Your task to perform on an android device: turn vacation reply on in the gmail app Image 0: 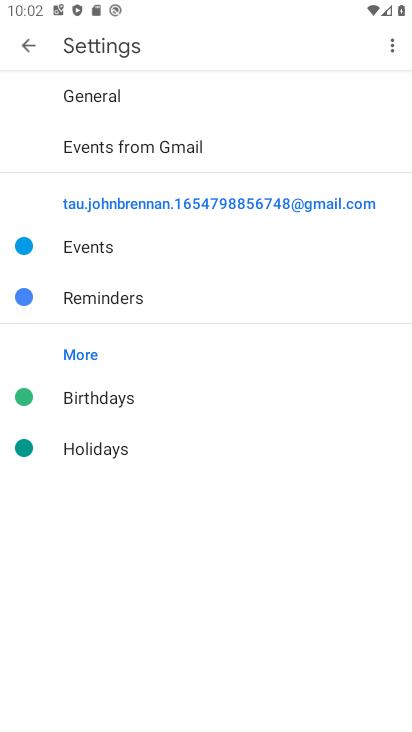
Step 0: press home button
Your task to perform on an android device: turn vacation reply on in the gmail app Image 1: 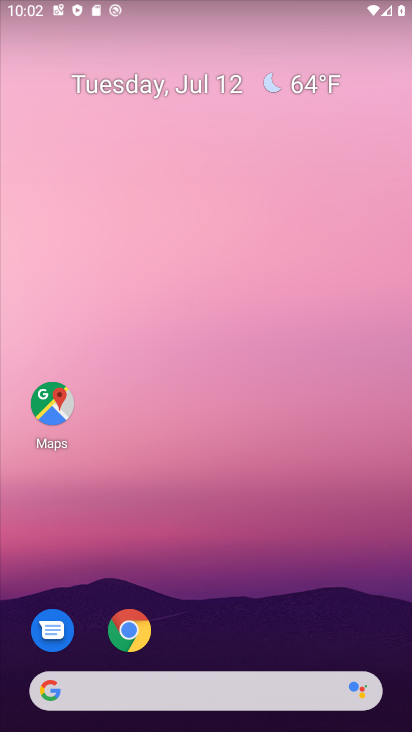
Step 1: drag from (310, 604) to (380, 30)
Your task to perform on an android device: turn vacation reply on in the gmail app Image 2: 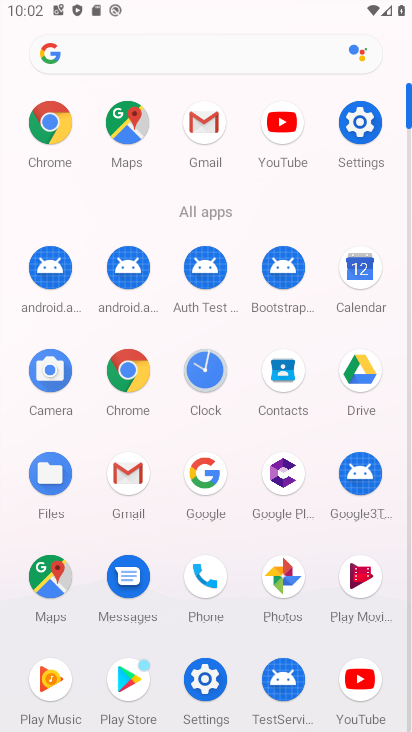
Step 2: click (215, 129)
Your task to perform on an android device: turn vacation reply on in the gmail app Image 3: 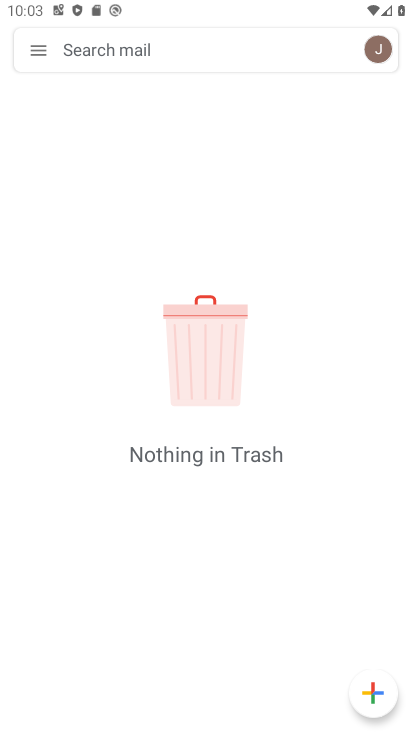
Step 3: click (33, 65)
Your task to perform on an android device: turn vacation reply on in the gmail app Image 4: 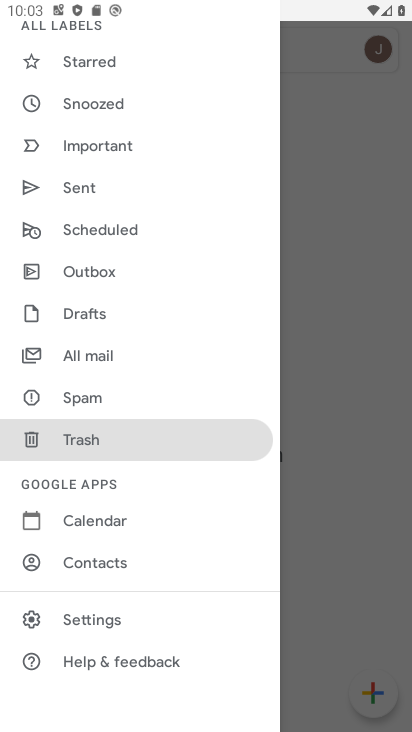
Step 4: click (101, 620)
Your task to perform on an android device: turn vacation reply on in the gmail app Image 5: 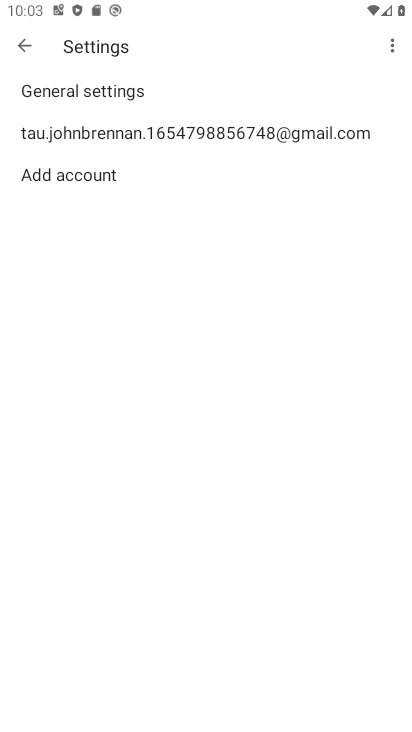
Step 5: click (116, 141)
Your task to perform on an android device: turn vacation reply on in the gmail app Image 6: 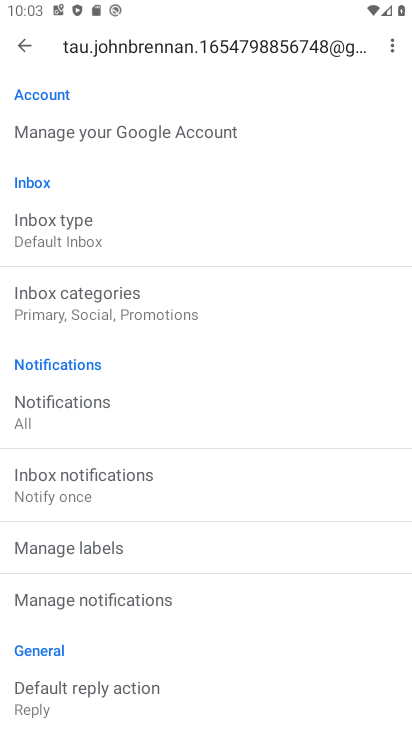
Step 6: drag from (116, 624) to (160, 82)
Your task to perform on an android device: turn vacation reply on in the gmail app Image 7: 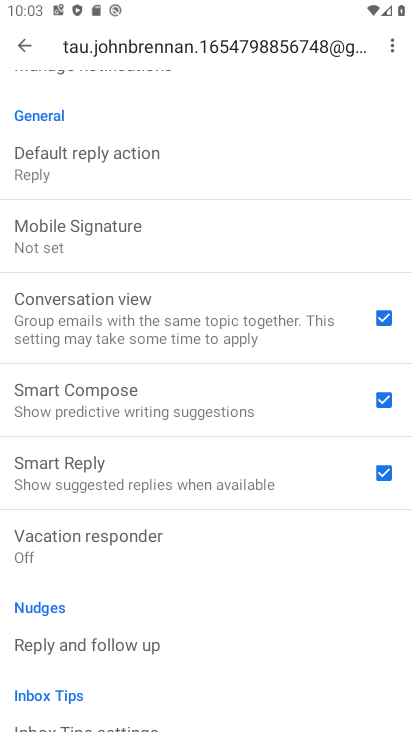
Step 7: click (140, 540)
Your task to perform on an android device: turn vacation reply on in the gmail app Image 8: 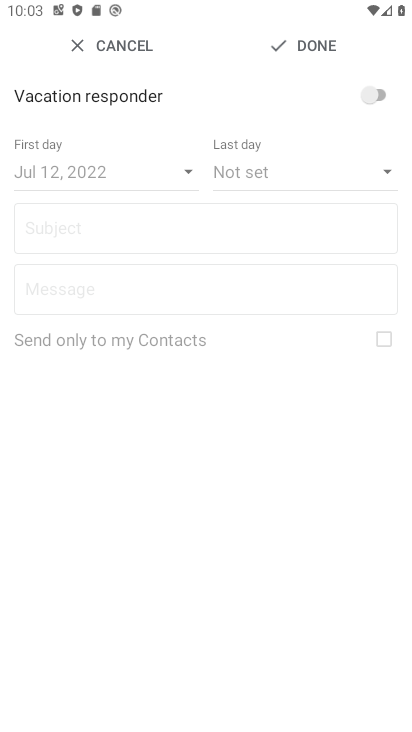
Step 8: click (382, 76)
Your task to perform on an android device: turn vacation reply on in the gmail app Image 9: 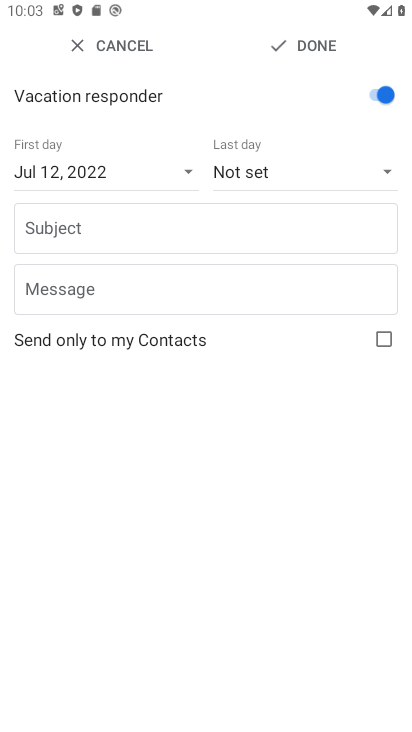
Step 9: task complete